Your task to perform on an android device: install app "Cash App" Image 0: 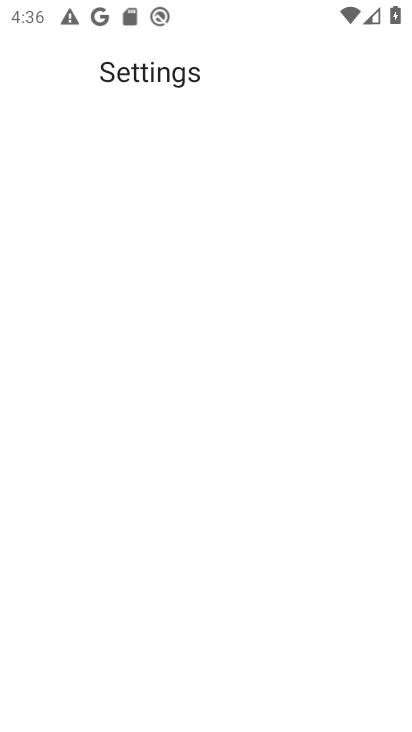
Step 0: drag from (294, 612) to (181, 55)
Your task to perform on an android device: install app "Cash App" Image 1: 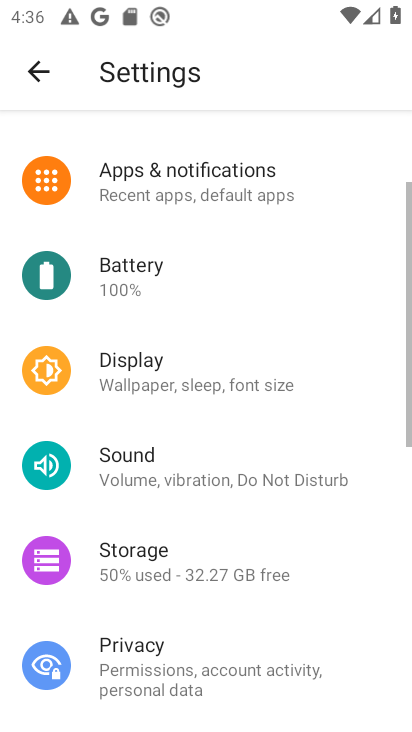
Step 1: click (32, 83)
Your task to perform on an android device: install app "Cash App" Image 2: 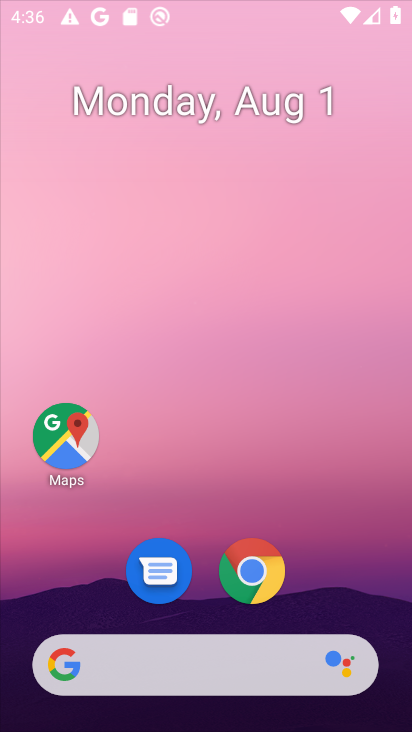
Step 2: press back button
Your task to perform on an android device: install app "Cash App" Image 3: 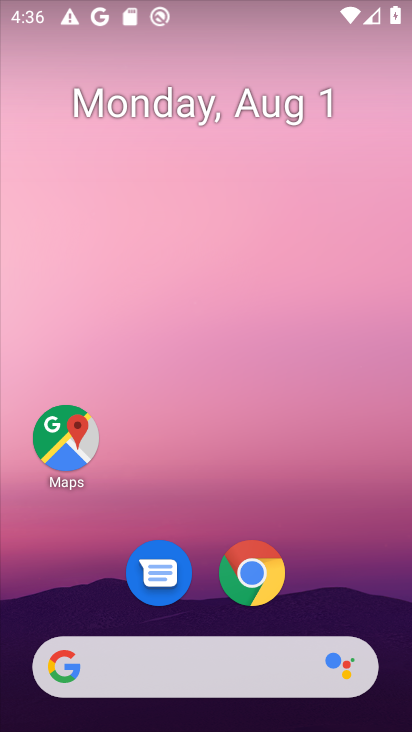
Step 3: press back button
Your task to perform on an android device: install app "Cash App" Image 4: 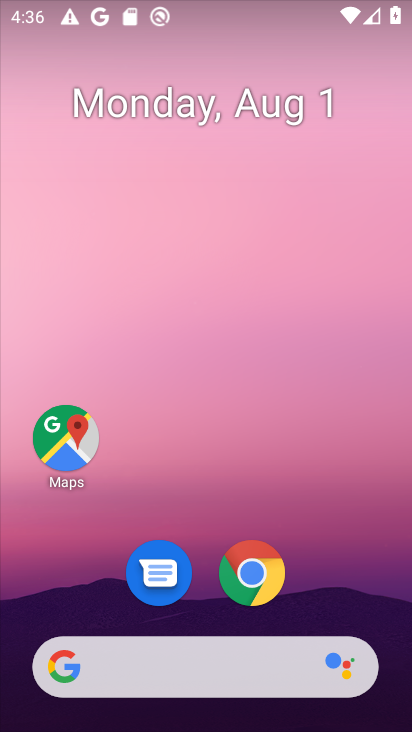
Step 4: drag from (167, 178) to (140, 4)
Your task to perform on an android device: install app "Cash App" Image 5: 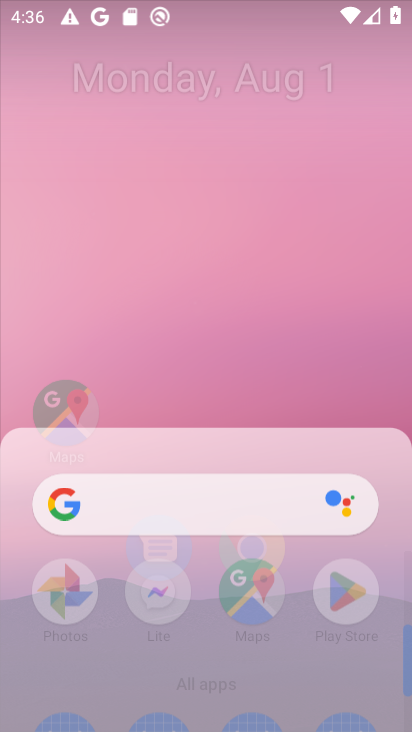
Step 5: drag from (220, 538) to (270, 48)
Your task to perform on an android device: install app "Cash App" Image 6: 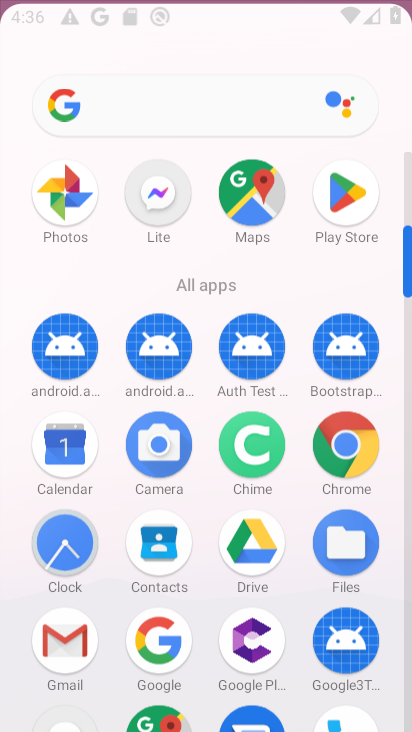
Step 6: drag from (203, 469) to (177, 10)
Your task to perform on an android device: install app "Cash App" Image 7: 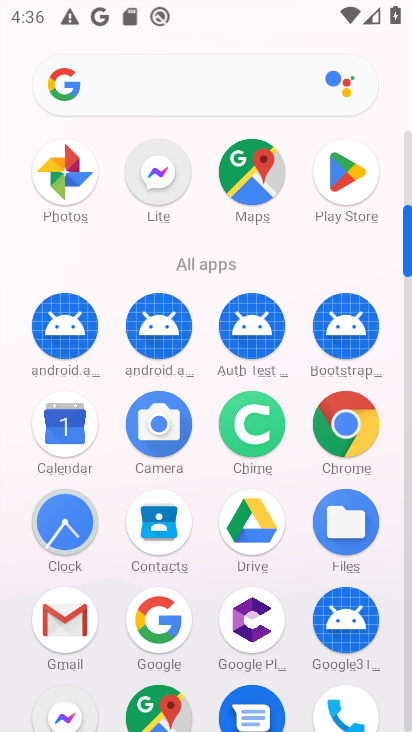
Step 7: drag from (172, 507) to (163, 197)
Your task to perform on an android device: install app "Cash App" Image 8: 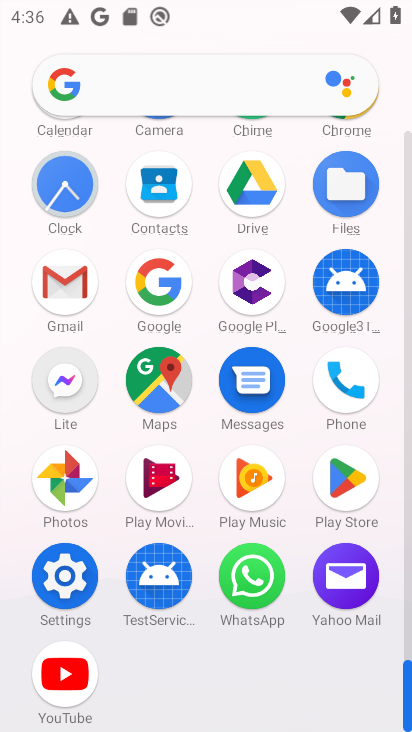
Step 8: drag from (305, 195) to (226, 715)
Your task to perform on an android device: install app "Cash App" Image 9: 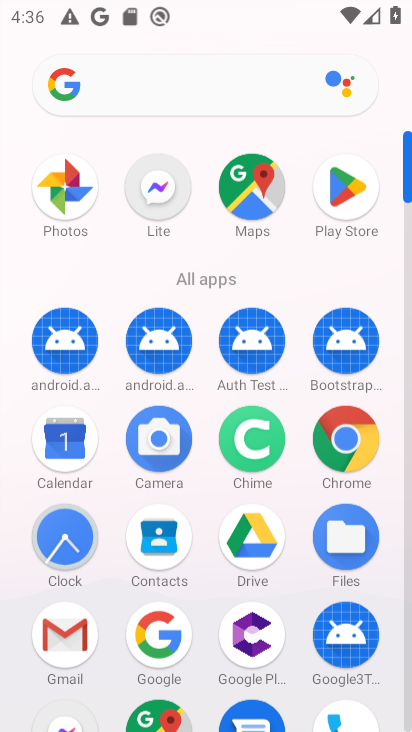
Step 9: drag from (288, 379) to (235, 678)
Your task to perform on an android device: install app "Cash App" Image 10: 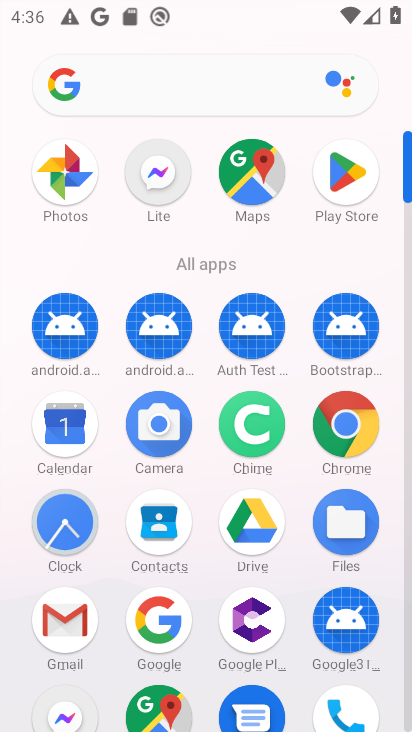
Step 10: click (349, 183)
Your task to perform on an android device: install app "Cash App" Image 11: 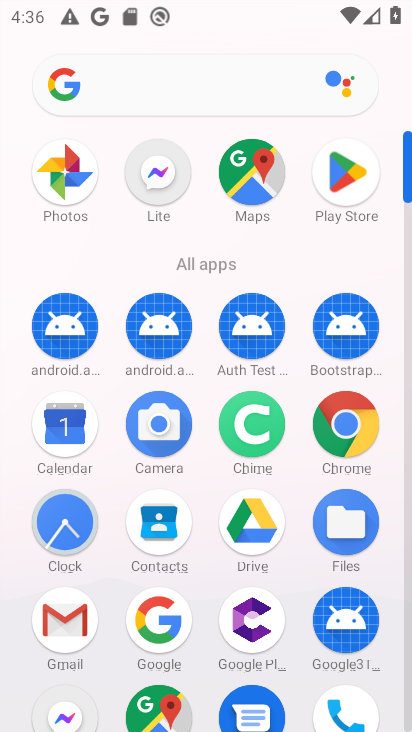
Step 11: click (352, 184)
Your task to perform on an android device: install app "Cash App" Image 12: 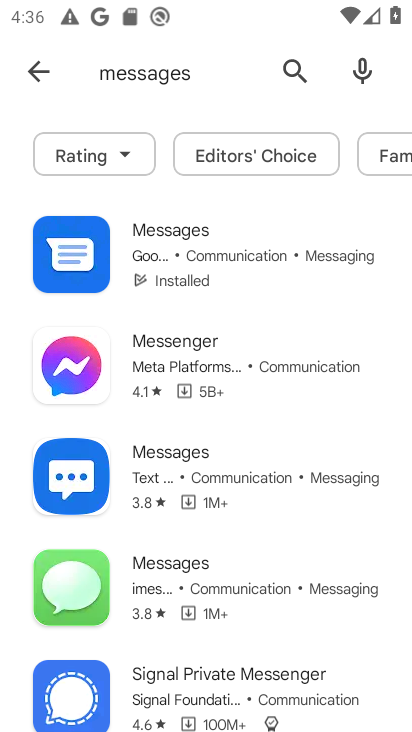
Step 12: click (353, 190)
Your task to perform on an android device: install app "Cash App" Image 13: 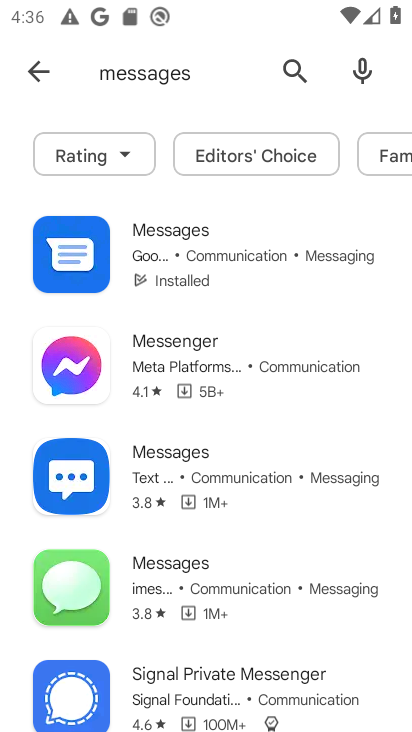
Step 13: click (25, 56)
Your task to perform on an android device: install app "Cash App" Image 14: 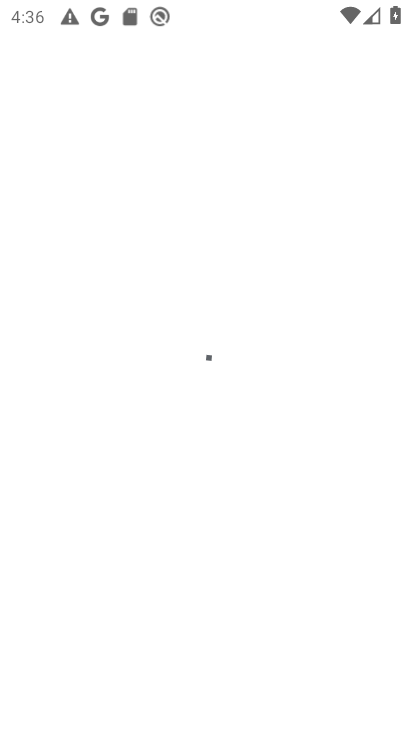
Step 14: click (35, 51)
Your task to perform on an android device: install app "Cash App" Image 15: 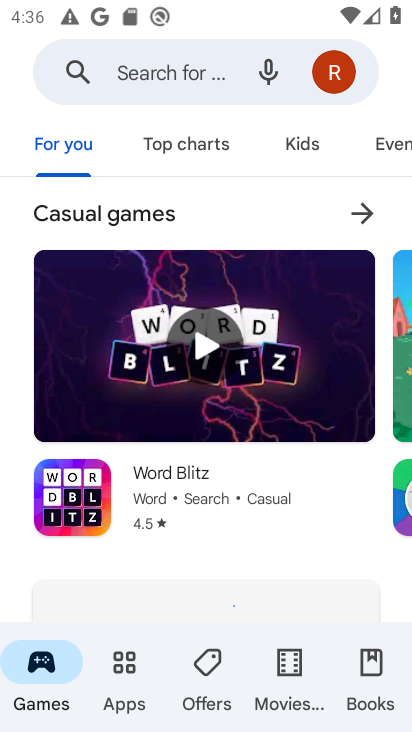
Step 15: click (45, 46)
Your task to perform on an android device: install app "Cash App" Image 16: 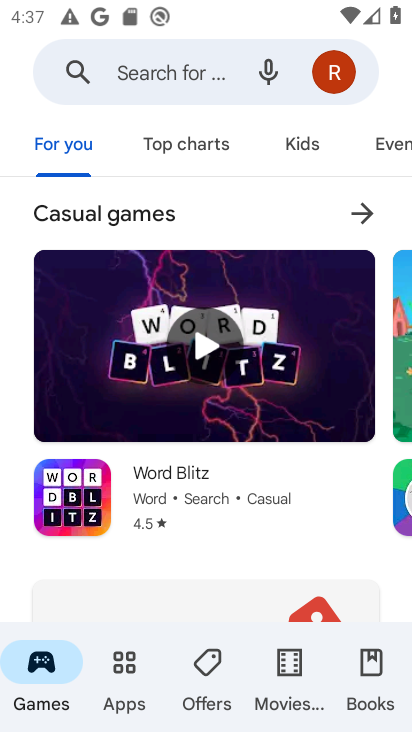
Step 16: click (133, 63)
Your task to perform on an android device: install app "Cash App" Image 17: 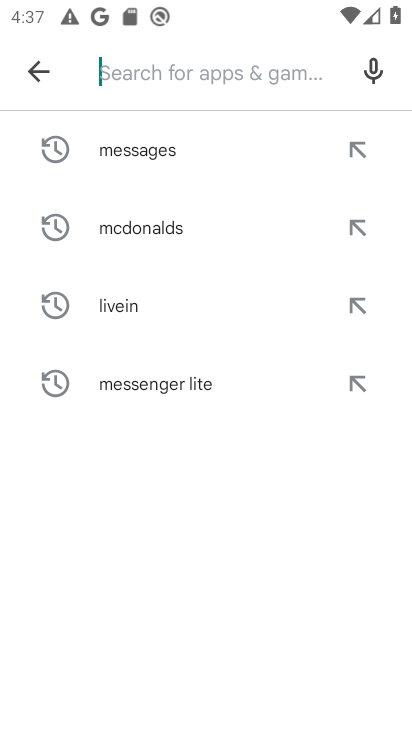
Step 17: click (138, 88)
Your task to perform on an android device: install app "Cash App" Image 18: 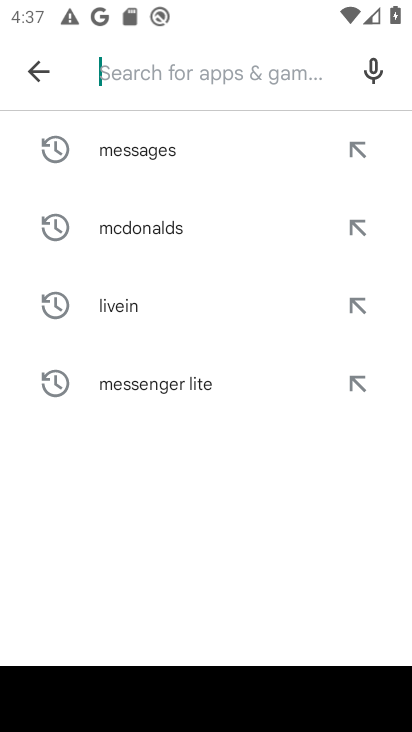
Step 18: type "cash app"
Your task to perform on an android device: install app "Cash App" Image 19: 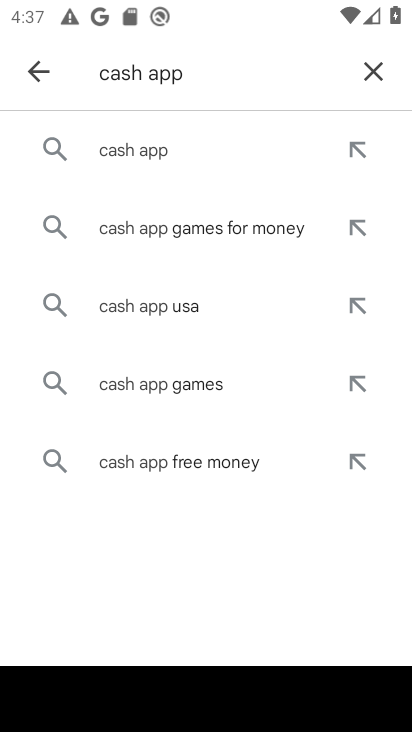
Step 19: click (138, 152)
Your task to perform on an android device: install app "Cash App" Image 20: 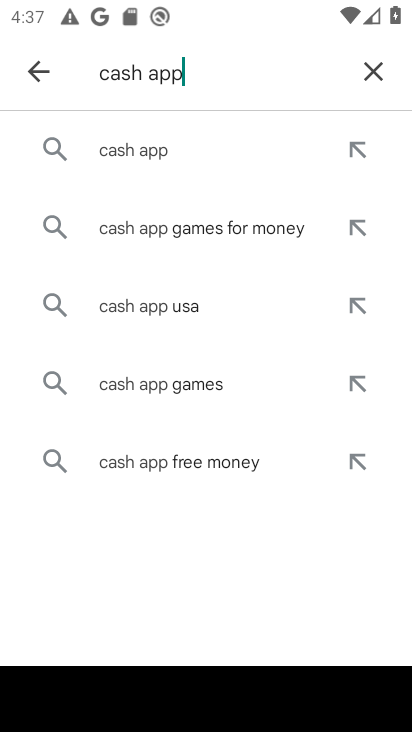
Step 20: click (137, 153)
Your task to perform on an android device: install app "Cash App" Image 21: 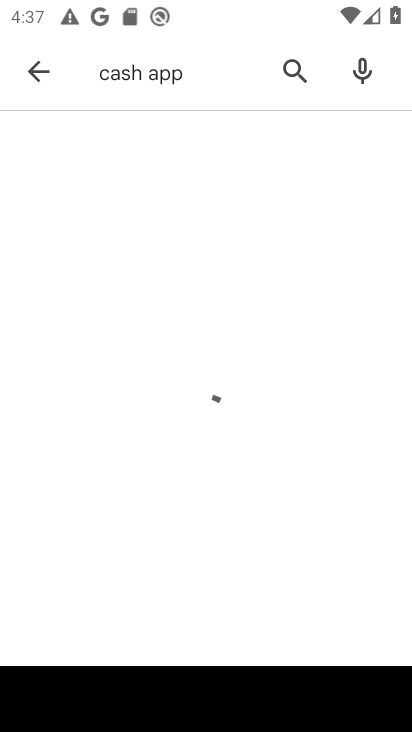
Step 21: click (137, 153)
Your task to perform on an android device: install app "Cash App" Image 22: 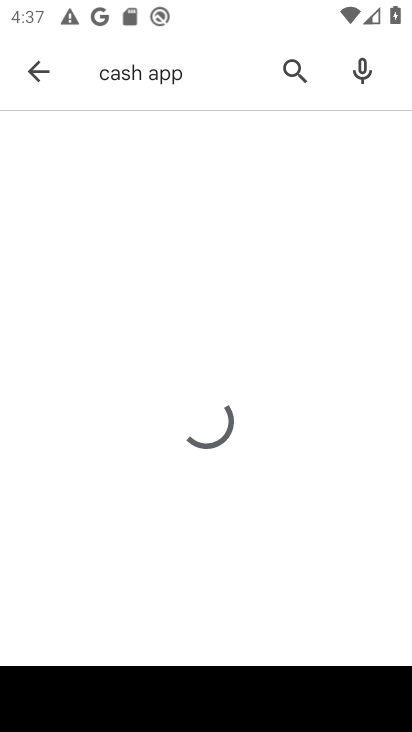
Step 22: click (137, 153)
Your task to perform on an android device: install app "Cash App" Image 23: 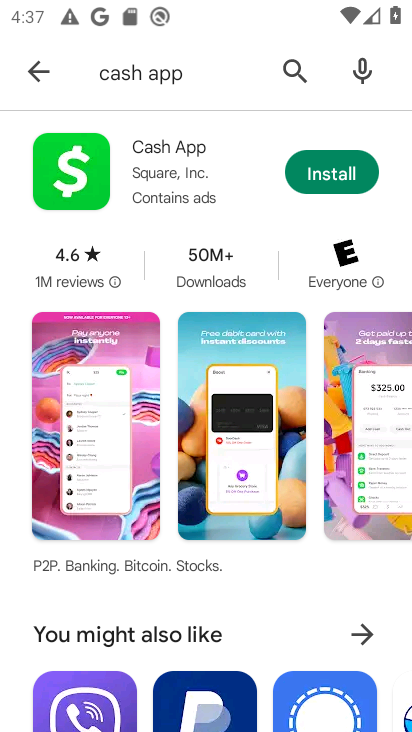
Step 23: click (346, 169)
Your task to perform on an android device: install app "Cash App" Image 24: 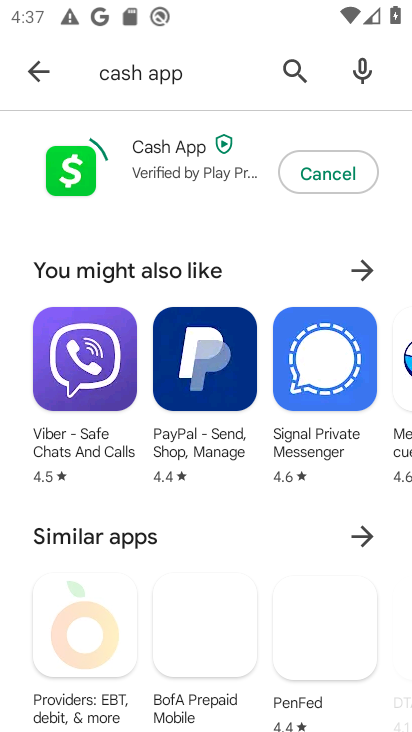
Step 24: click (356, 168)
Your task to perform on an android device: install app "Cash App" Image 25: 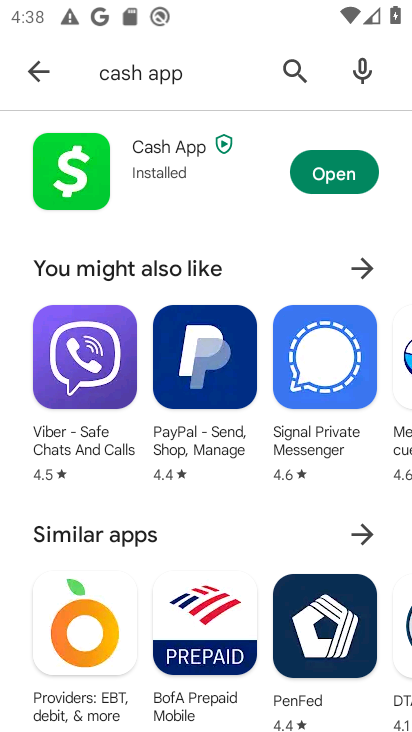
Step 25: task complete